Your task to perform on an android device: Open settings on Google Maps Image 0: 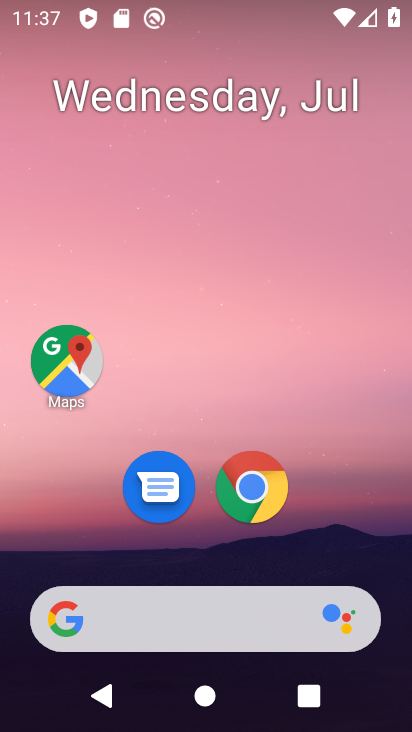
Step 0: drag from (150, 618) to (219, 128)
Your task to perform on an android device: Open settings on Google Maps Image 1: 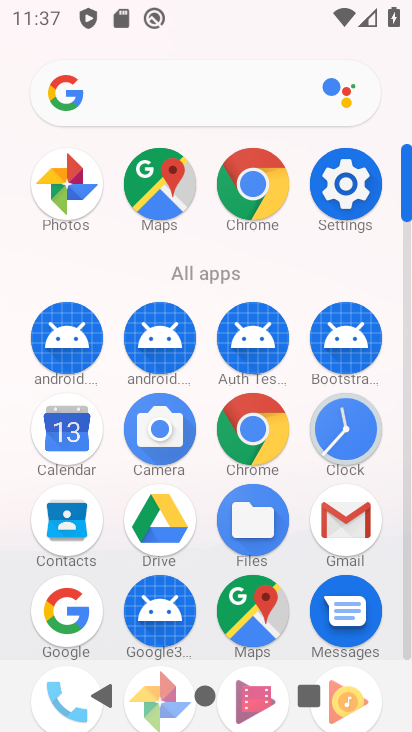
Step 1: drag from (226, 479) to (242, 302)
Your task to perform on an android device: Open settings on Google Maps Image 2: 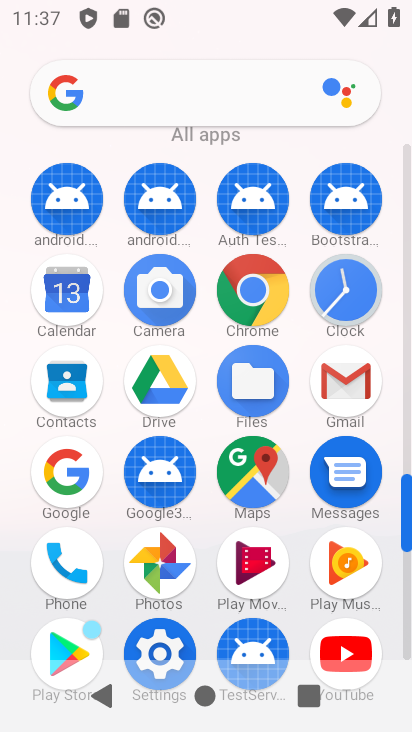
Step 2: click (252, 473)
Your task to perform on an android device: Open settings on Google Maps Image 3: 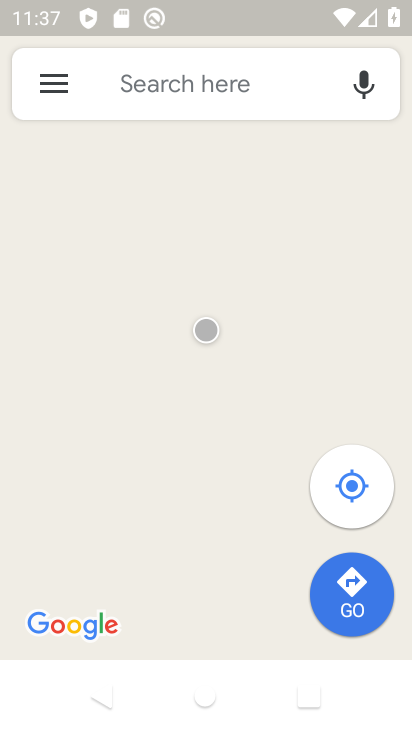
Step 3: click (53, 86)
Your task to perform on an android device: Open settings on Google Maps Image 4: 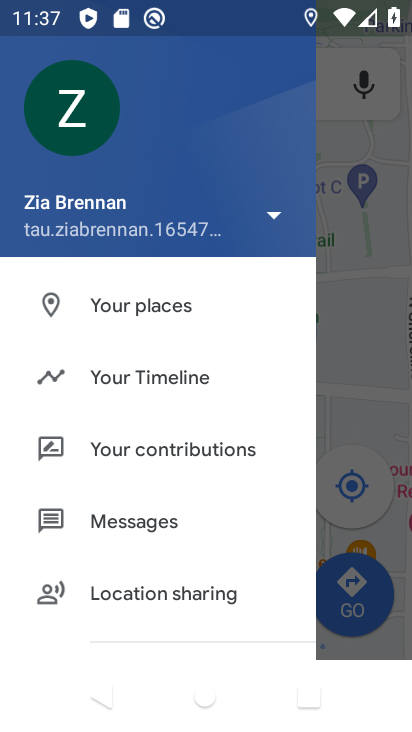
Step 4: drag from (145, 507) to (164, 287)
Your task to perform on an android device: Open settings on Google Maps Image 5: 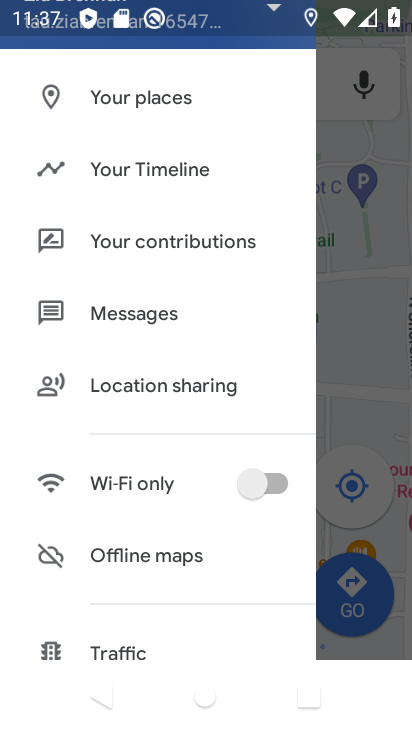
Step 5: drag from (118, 576) to (169, 232)
Your task to perform on an android device: Open settings on Google Maps Image 6: 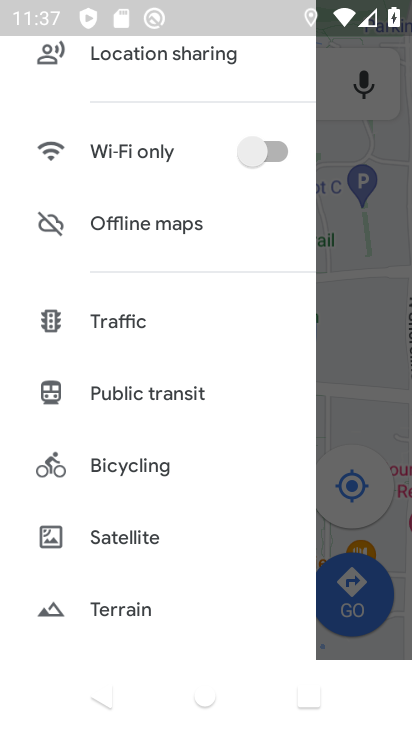
Step 6: drag from (115, 539) to (165, 190)
Your task to perform on an android device: Open settings on Google Maps Image 7: 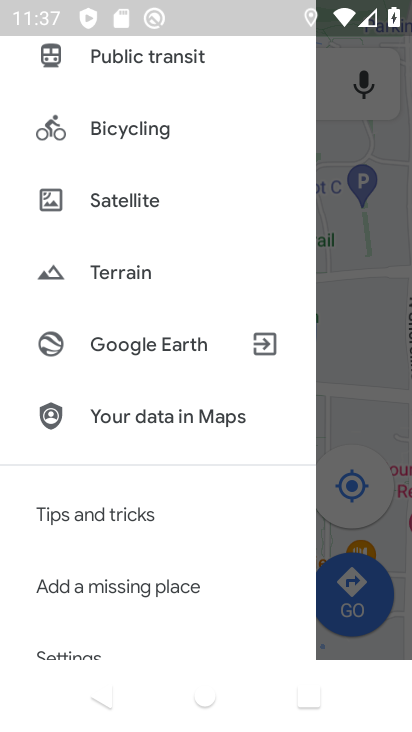
Step 7: drag from (125, 508) to (158, 233)
Your task to perform on an android device: Open settings on Google Maps Image 8: 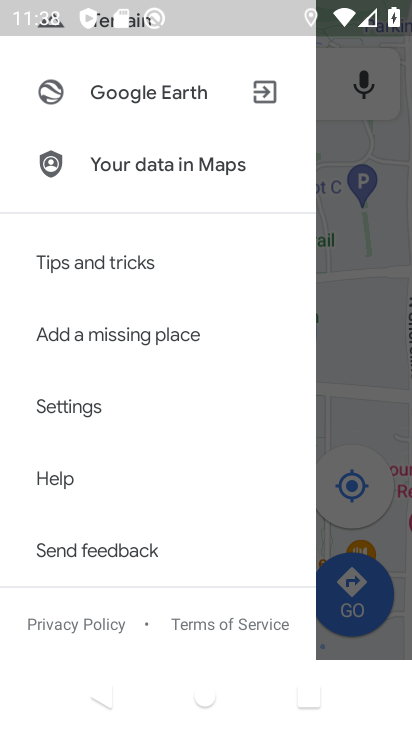
Step 8: click (73, 416)
Your task to perform on an android device: Open settings on Google Maps Image 9: 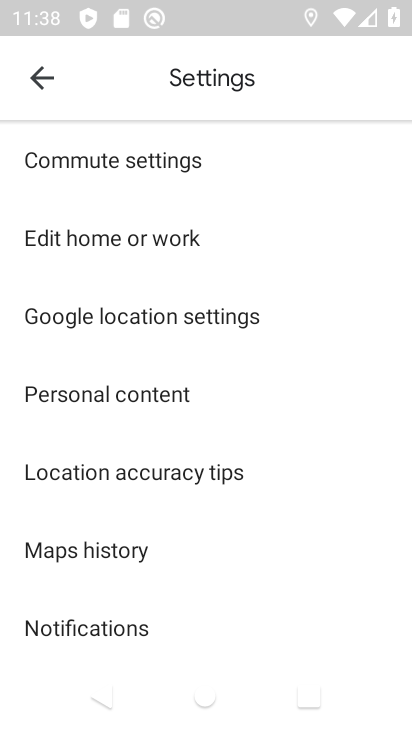
Step 9: task complete